Your task to perform on an android device: Open network settings Image 0: 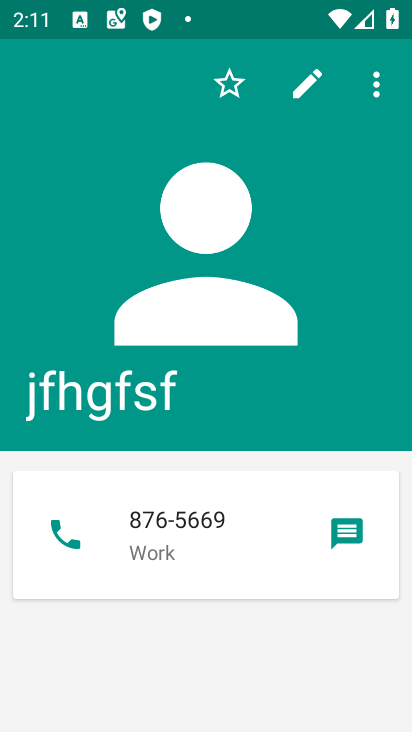
Step 0: press home button
Your task to perform on an android device: Open network settings Image 1: 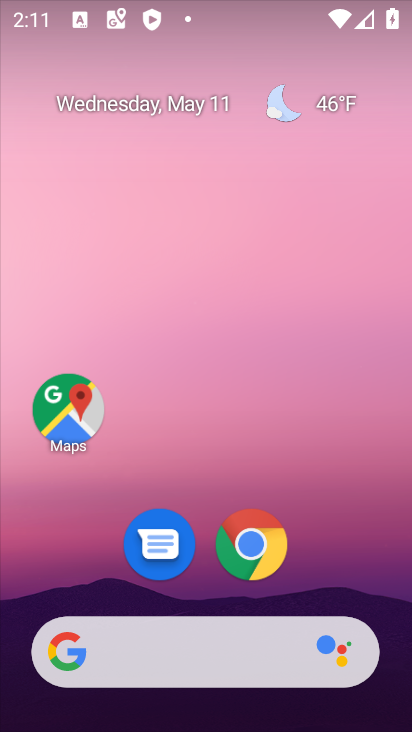
Step 1: drag from (399, 623) to (258, 66)
Your task to perform on an android device: Open network settings Image 2: 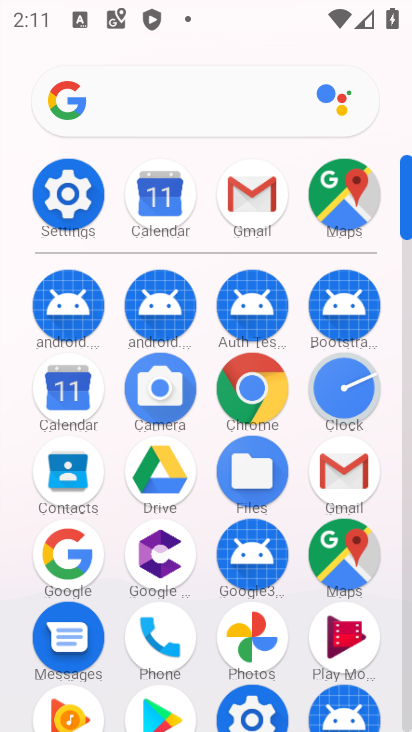
Step 2: click (408, 712)
Your task to perform on an android device: Open network settings Image 3: 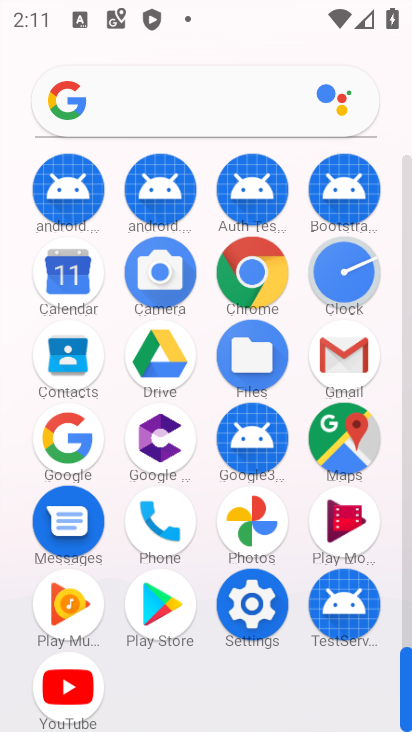
Step 3: click (251, 601)
Your task to perform on an android device: Open network settings Image 4: 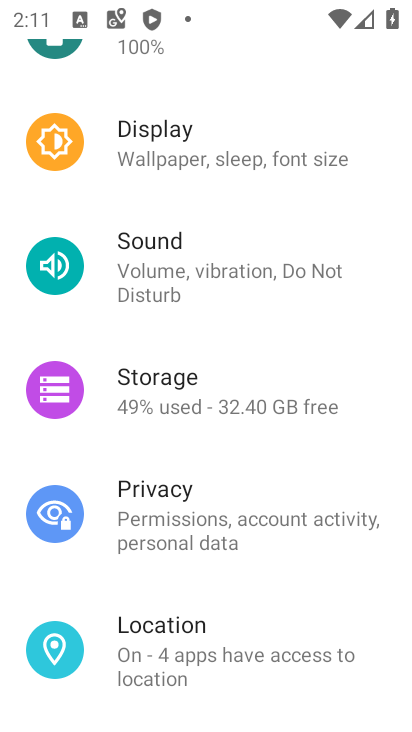
Step 4: drag from (346, 145) to (349, 501)
Your task to perform on an android device: Open network settings Image 5: 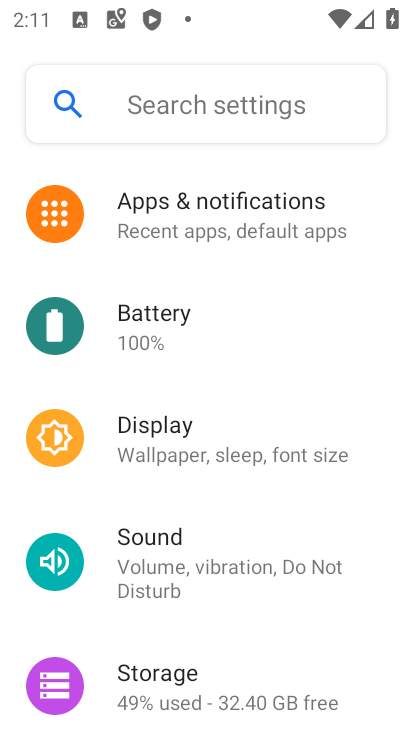
Step 5: drag from (339, 229) to (330, 552)
Your task to perform on an android device: Open network settings Image 6: 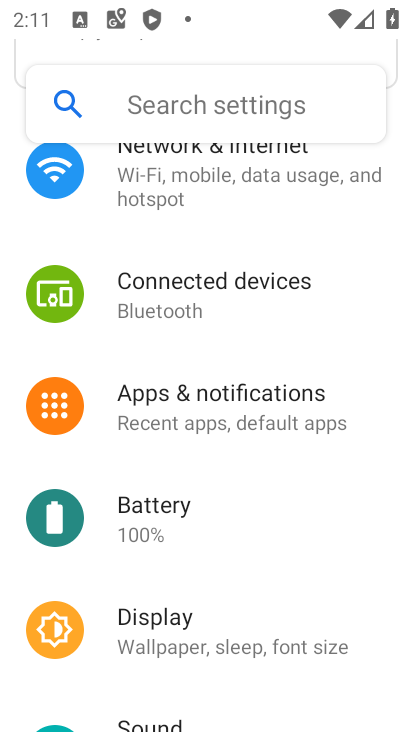
Step 6: click (146, 166)
Your task to perform on an android device: Open network settings Image 7: 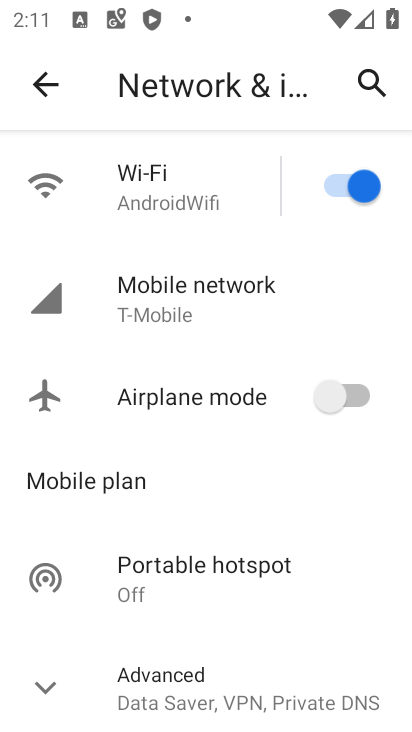
Step 7: click (148, 292)
Your task to perform on an android device: Open network settings Image 8: 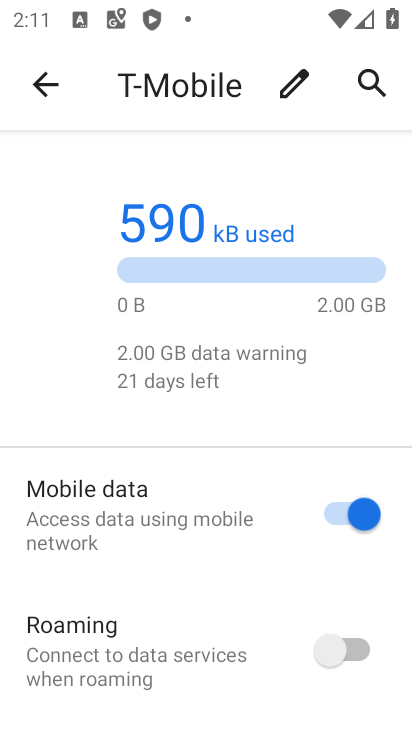
Step 8: drag from (183, 608) to (277, 290)
Your task to perform on an android device: Open network settings Image 9: 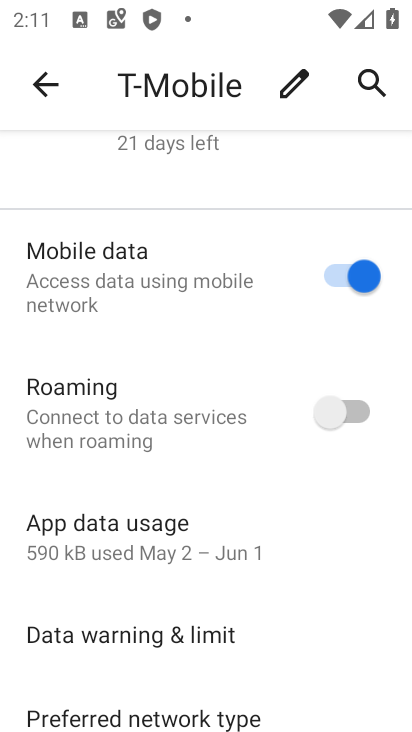
Step 9: drag from (274, 594) to (253, 195)
Your task to perform on an android device: Open network settings Image 10: 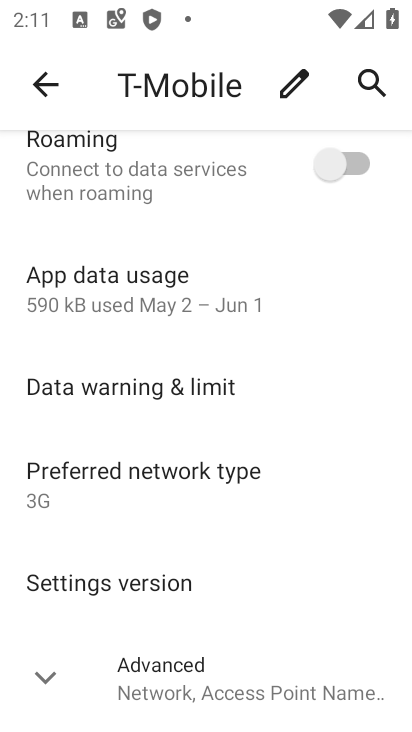
Step 10: click (46, 677)
Your task to perform on an android device: Open network settings Image 11: 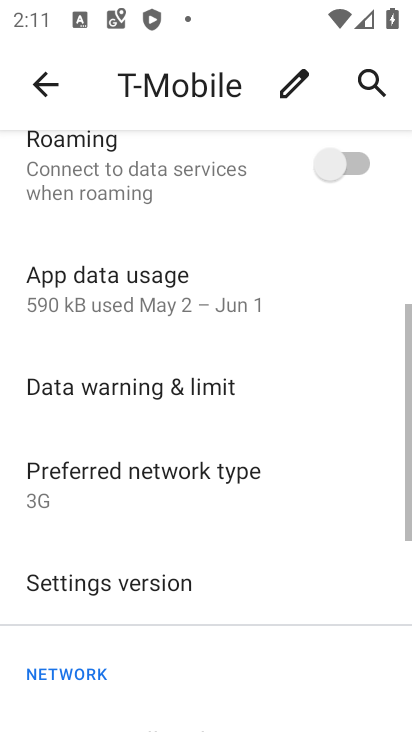
Step 11: task complete